Your task to perform on an android device: Go to eBay Image 0: 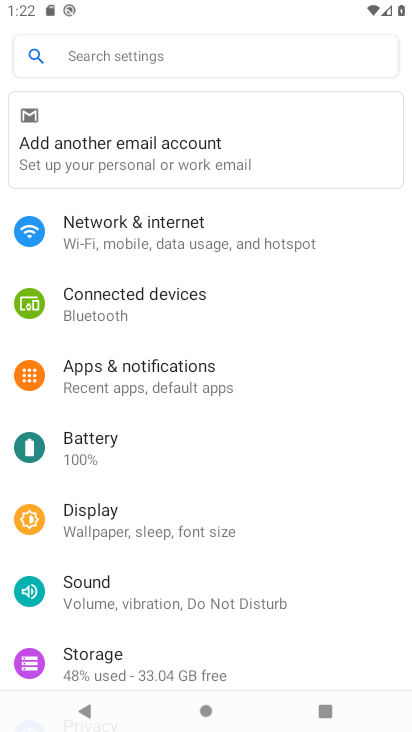
Step 0: press home button
Your task to perform on an android device: Go to eBay Image 1: 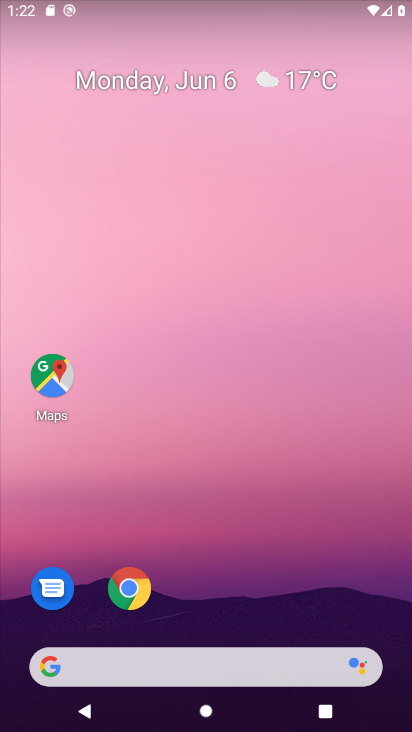
Step 1: click (240, 661)
Your task to perform on an android device: Go to eBay Image 2: 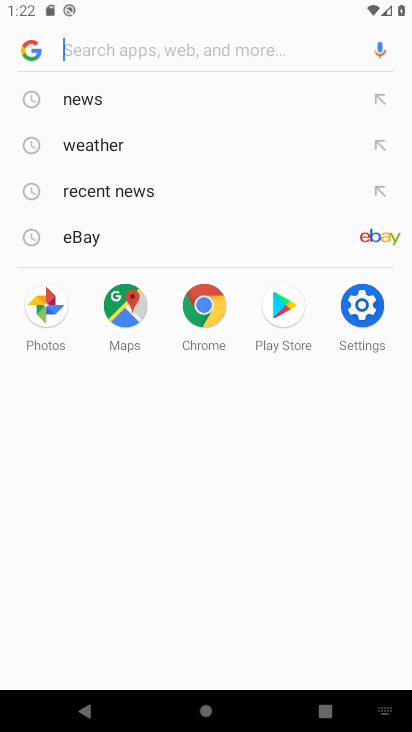
Step 2: click (163, 246)
Your task to perform on an android device: Go to eBay Image 3: 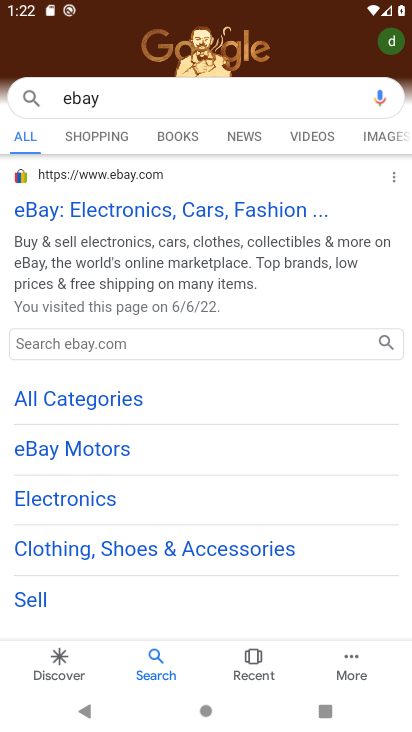
Step 3: click (103, 181)
Your task to perform on an android device: Go to eBay Image 4: 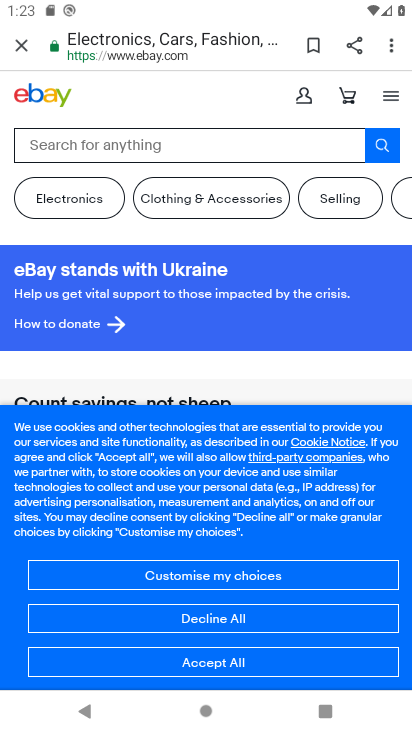
Step 4: task complete